Your task to perform on an android device: Show me productivity apps on the Play Store Image 0: 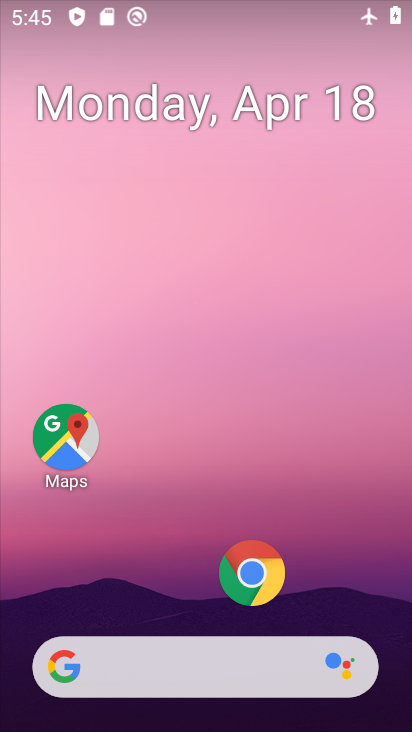
Step 0: drag from (215, 584) to (281, 51)
Your task to perform on an android device: Show me productivity apps on the Play Store Image 1: 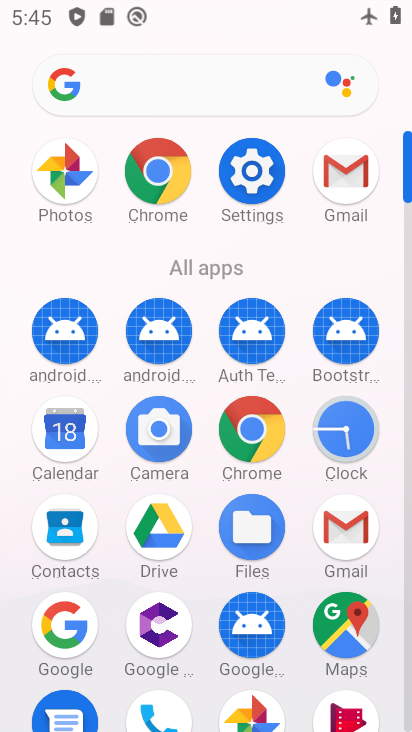
Step 1: drag from (197, 585) to (258, 163)
Your task to perform on an android device: Show me productivity apps on the Play Store Image 2: 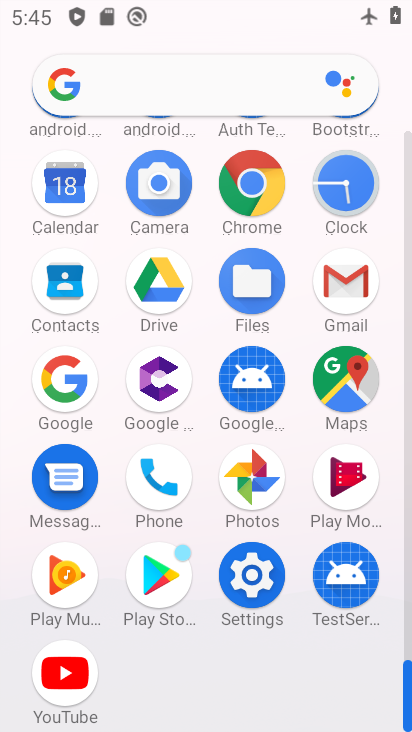
Step 2: click (165, 578)
Your task to perform on an android device: Show me productivity apps on the Play Store Image 3: 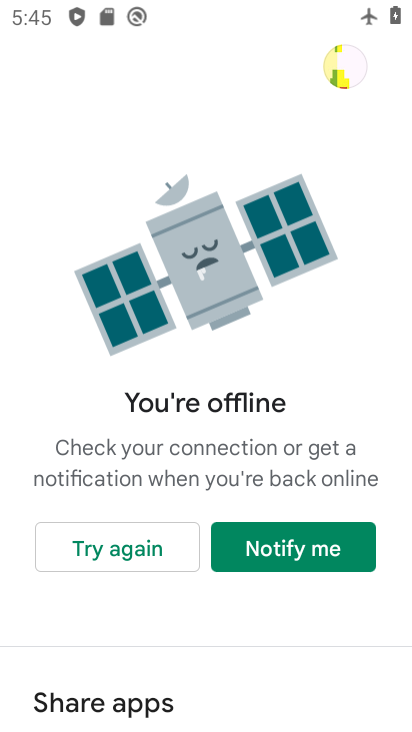
Step 3: click (158, 549)
Your task to perform on an android device: Show me productivity apps on the Play Store Image 4: 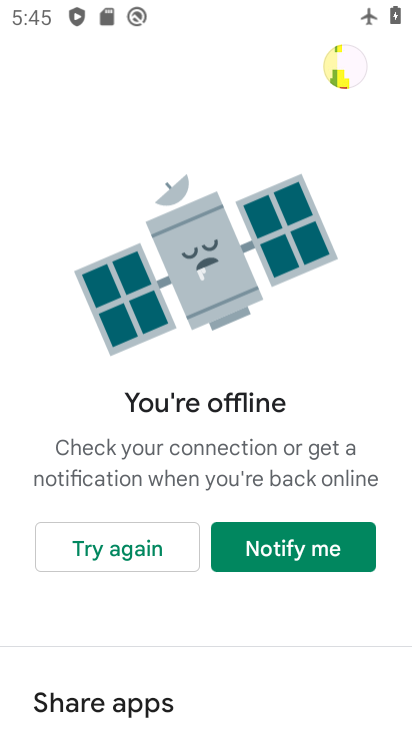
Step 4: task complete